Your task to perform on an android device: set the stopwatch Image 0: 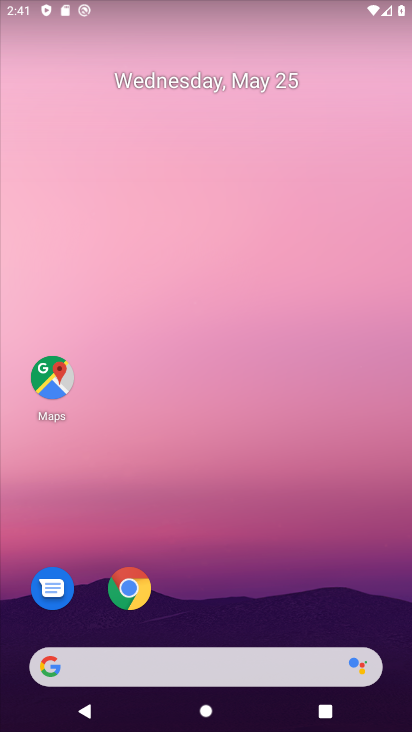
Step 0: press home button
Your task to perform on an android device: set the stopwatch Image 1: 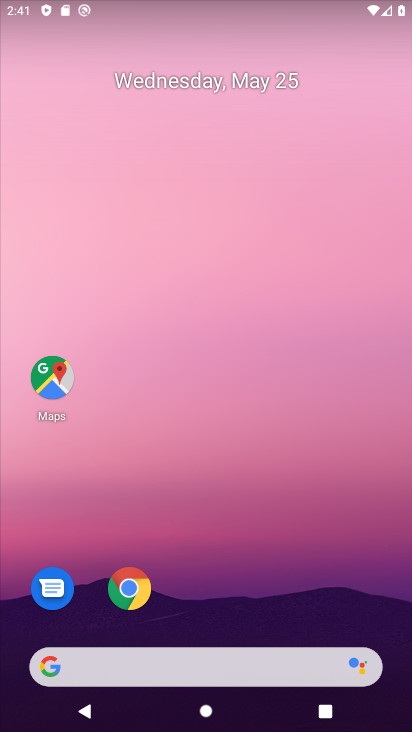
Step 1: drag from (271, 686) to (291, 46)
Your task to perform on an android device: set the stopwatch Image 2: 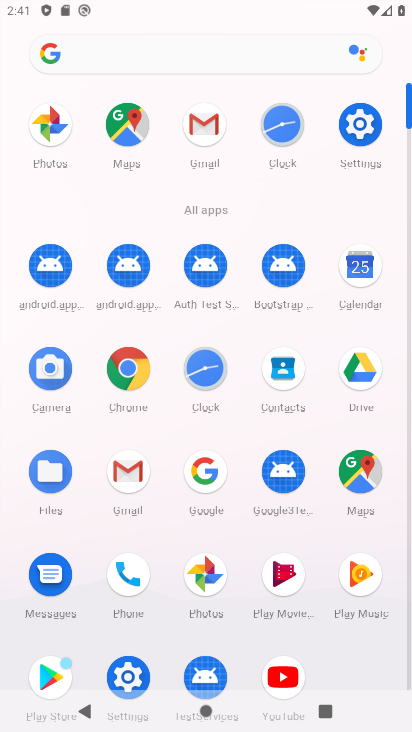
Step 2: click (296, 133)
Your task to perform on an android device: set the stopwatch Image 3: 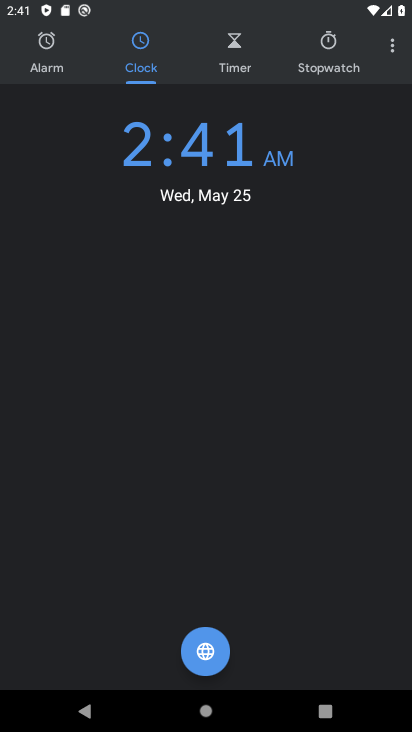
Step 3: click (309, 55)
Your task to perform on an android device: set the stopwatch Image 4: 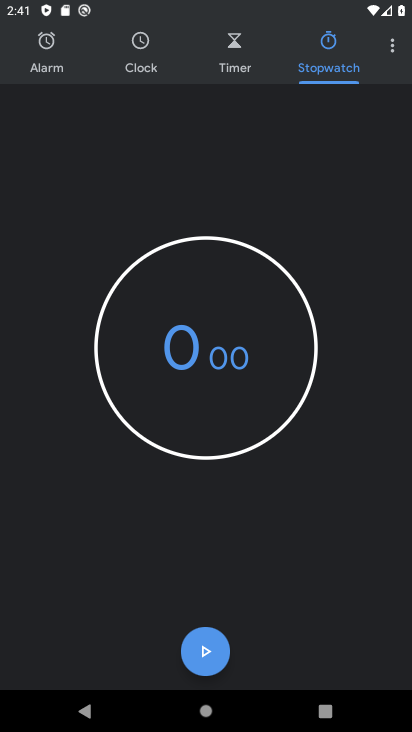
Step 4: task complete